Your task to perform on an android device: What is the news today? Image 0: 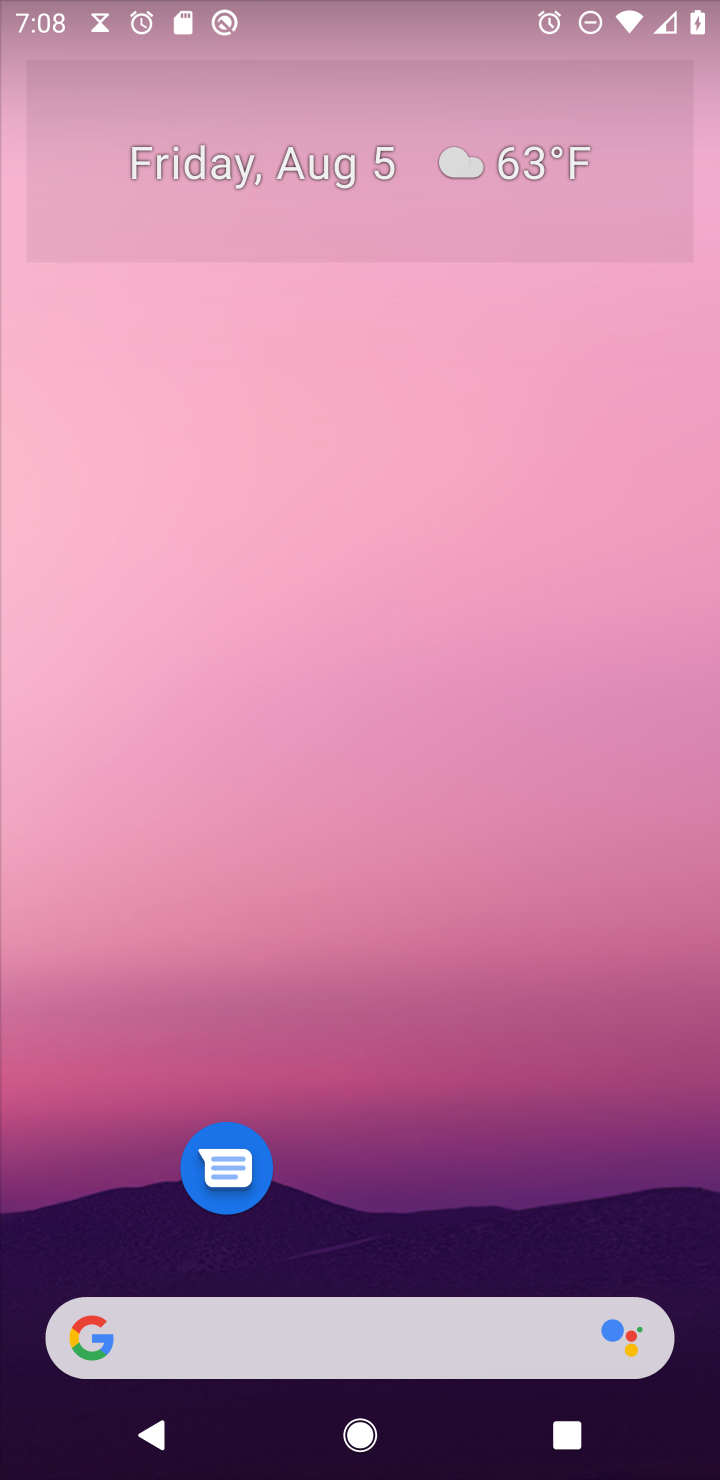
Step 0: click (89, 1344)
Your task to perform on an android device: What is the news today? Image 1: 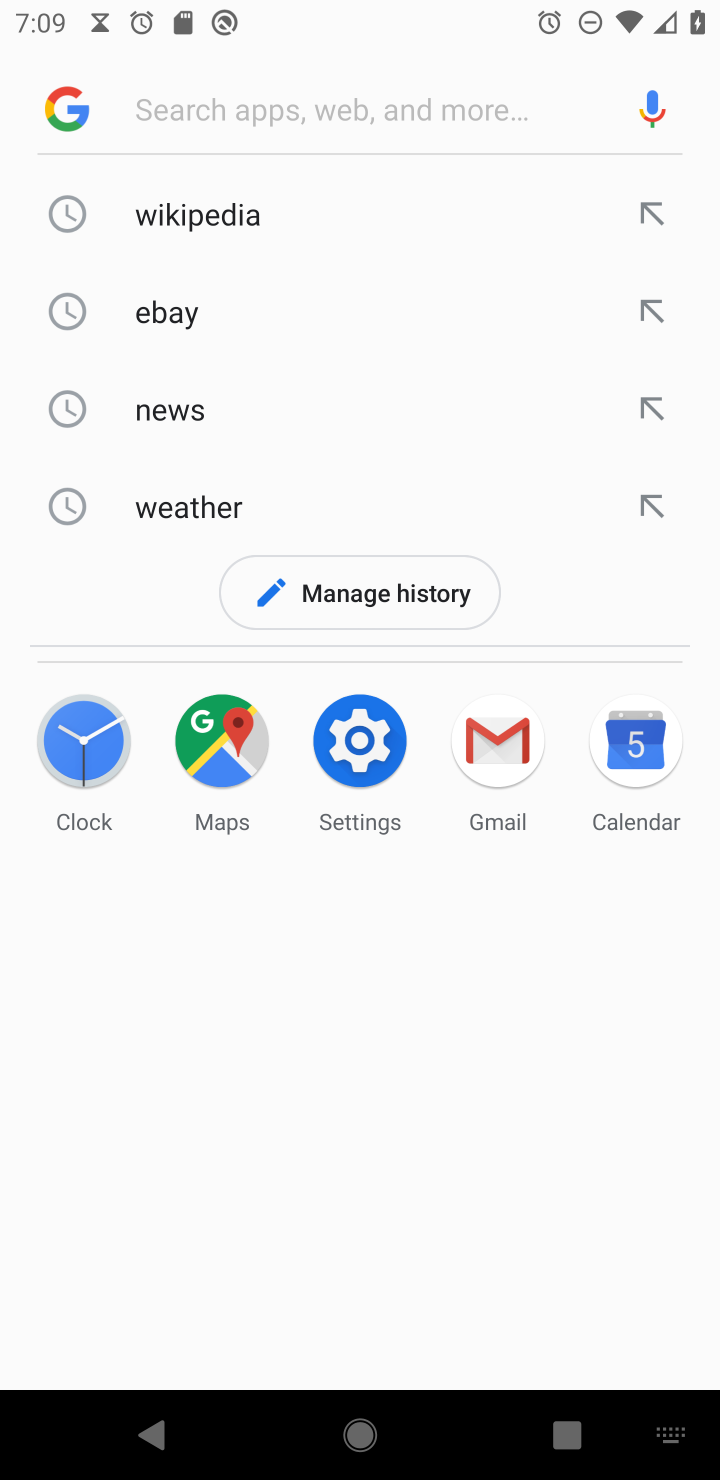
Step 1: press enter
Your task to perform on an android device: What is the news today? Image 2: 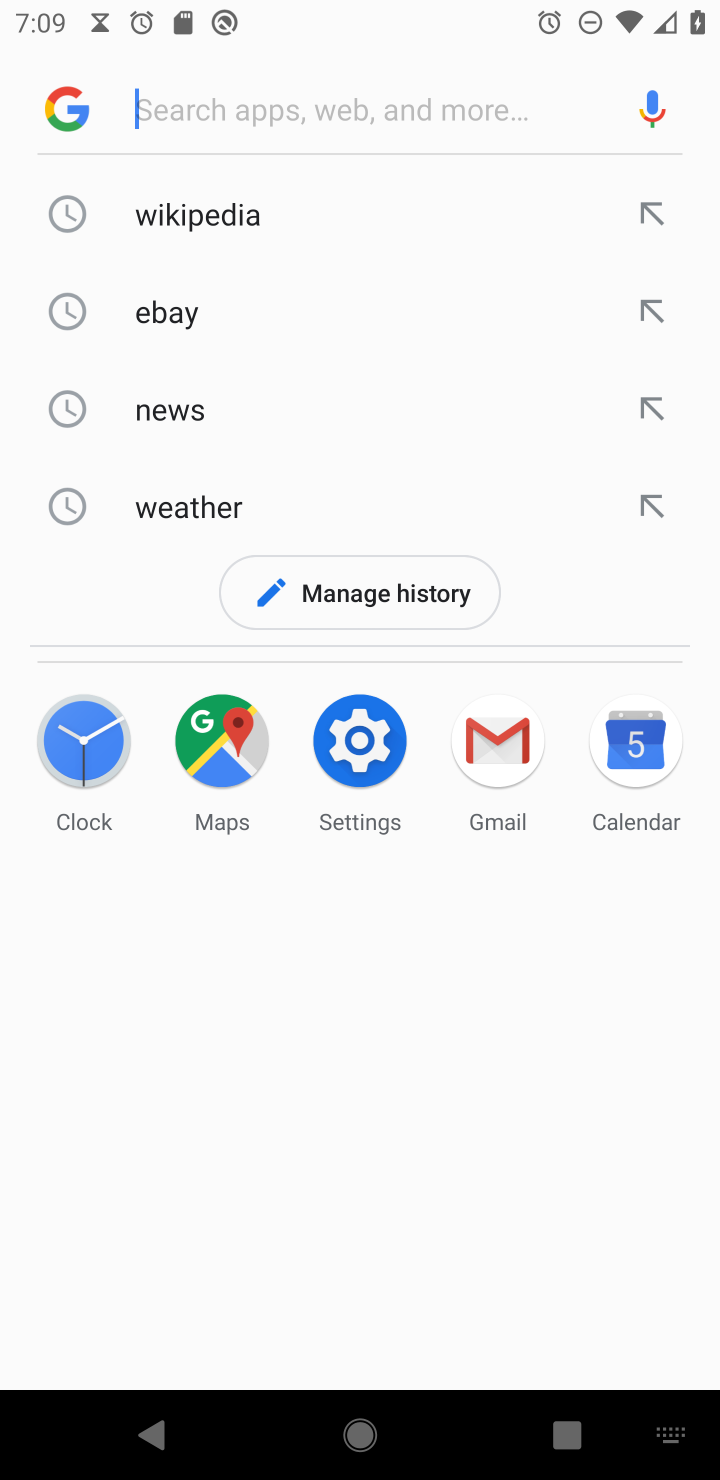
Step 2: type "news today?"
Your task to perform on an android device: What is the news today? Image 3: 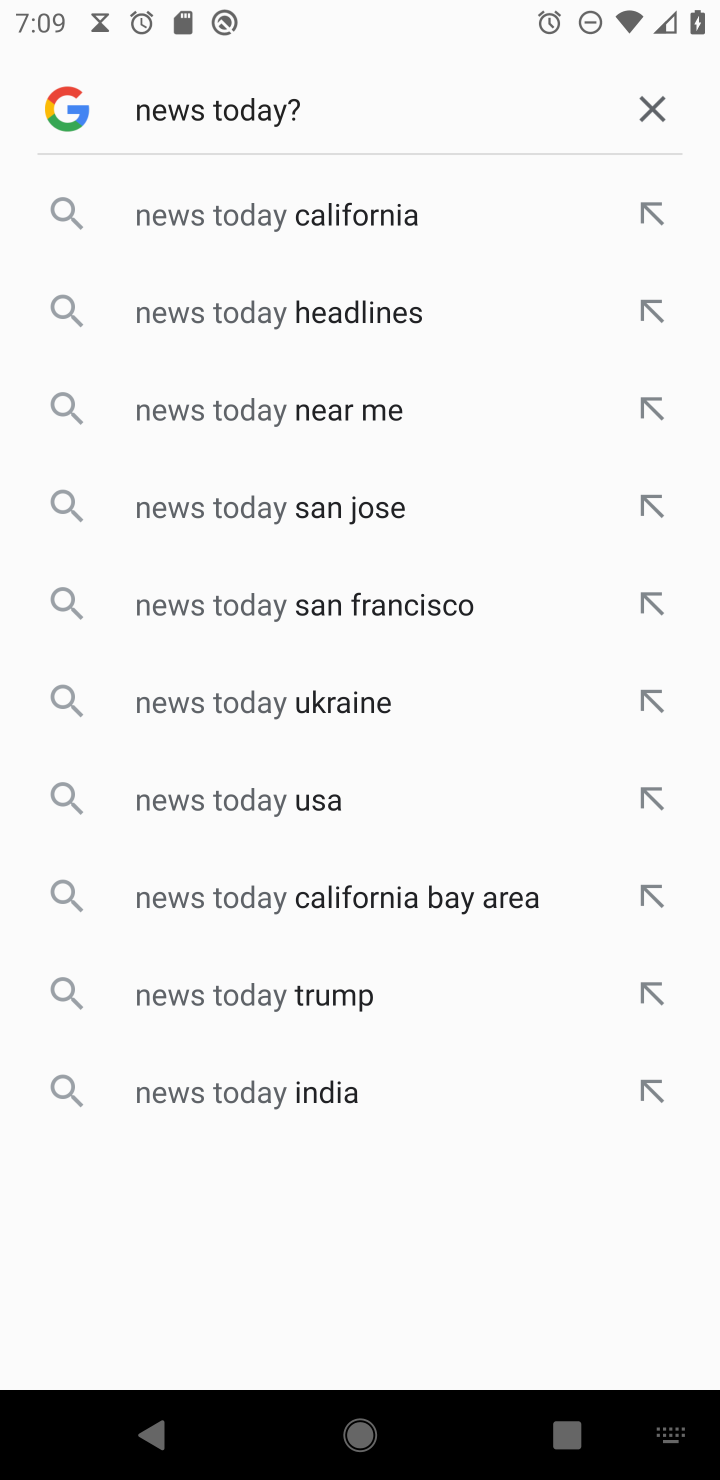
Step 3: press enter
Your task to perform on an android device: What is the news today? Image 4: 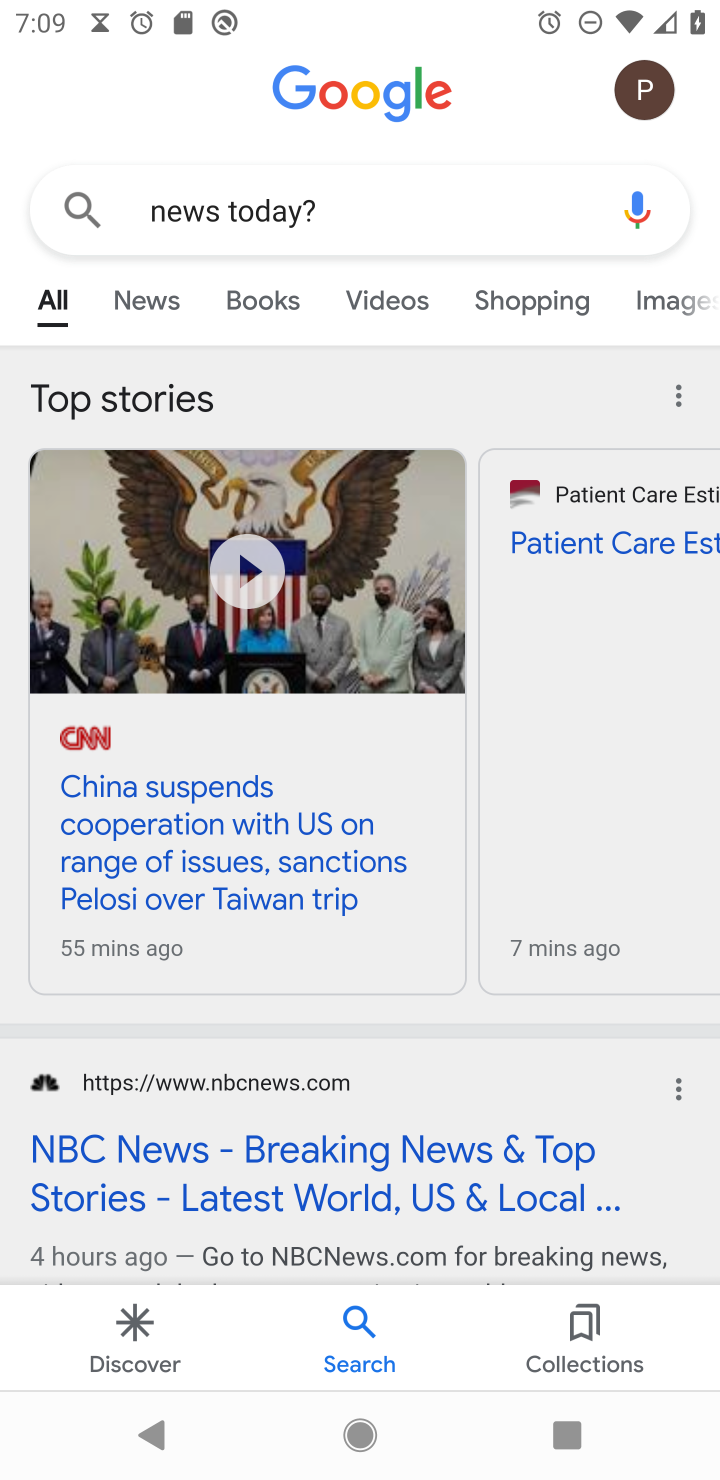
Step 4: task complete